Your task to perform on an android device: check battery use Image 0: 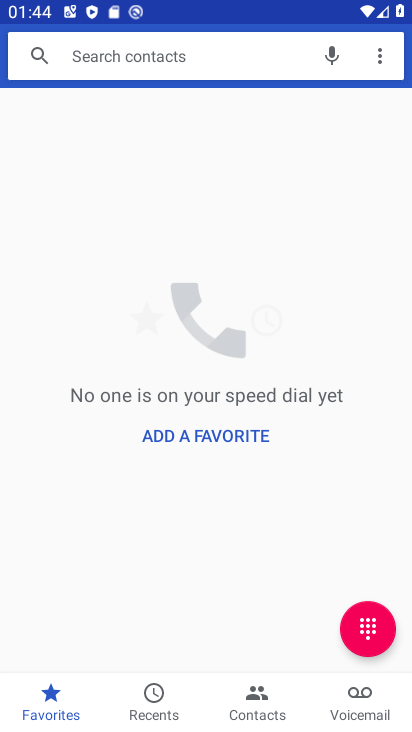
Step 0: press home button
Your task to perform on an android device: check battery use Image 1: 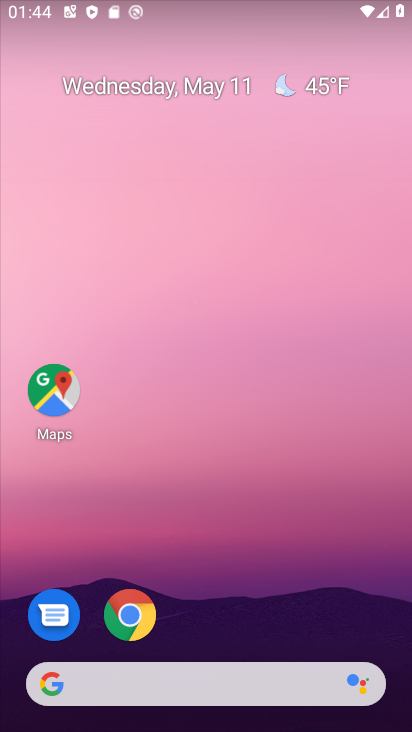
Step 1: drag from (344, 612) to (344, 239)
Your task to perform on an android device: check battery use Image 2: 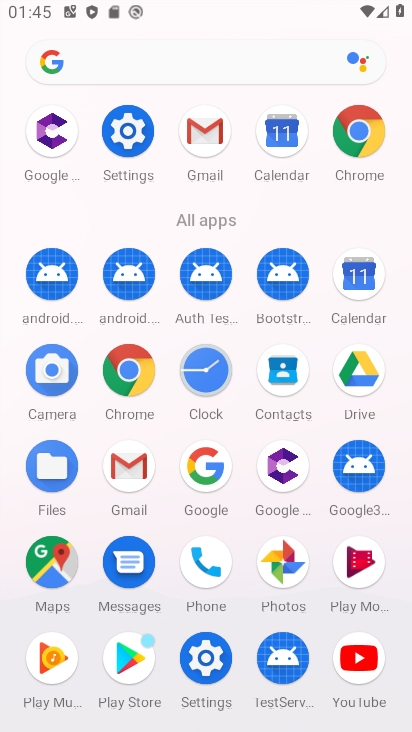
Step 2: click (197, 654)
Your task to perform on an android device: check battery use Image 3: 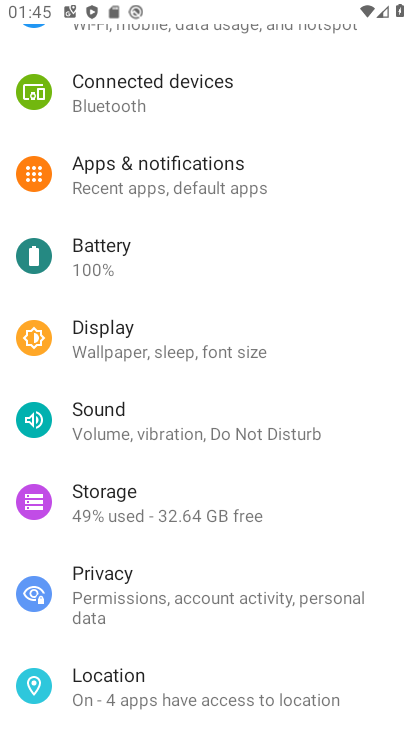
Step 3: click (176, 264)
Your task to perform on an android device: check battery use Image 4: 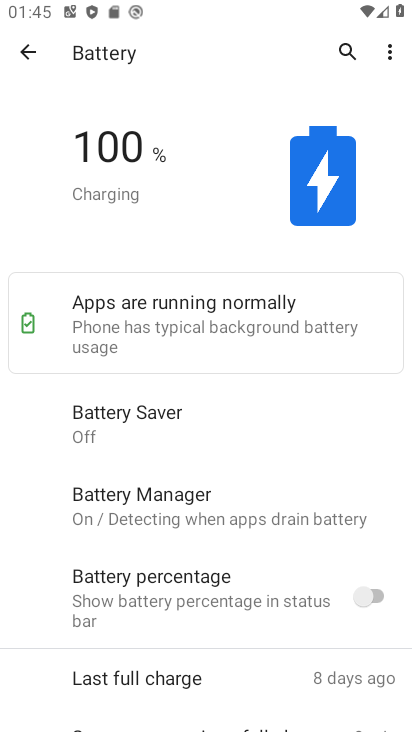
Step 4: task complete